Your task to perform on an android device: When is my next appointment? Image 0: 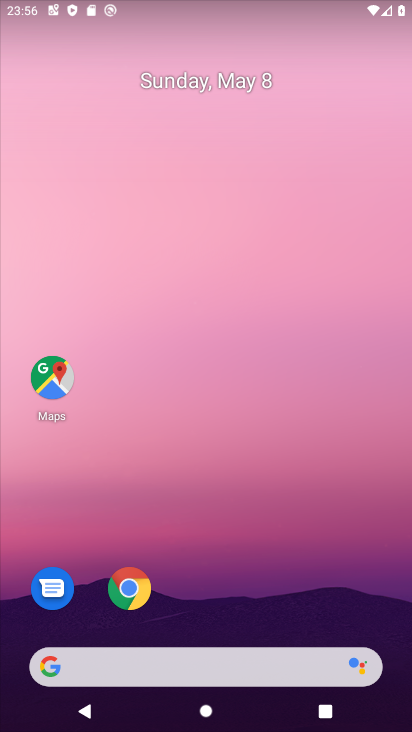
Step 0: drag from (241, 598) to (154, 10)
Your task to perform on an android device: When is my next appointment? Image 1: 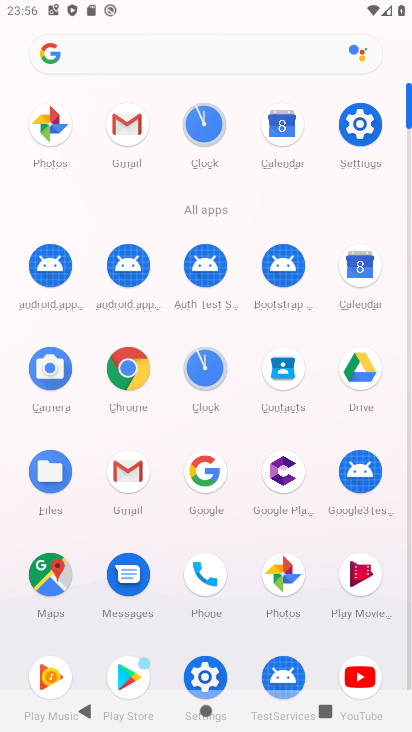
Step 1: click (357, 269)
Your task to perform on an android device: When is my next appointment? Image 2: 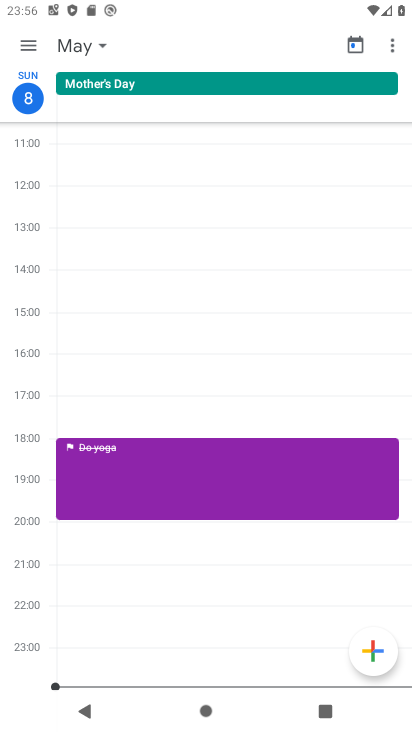
Step 2: task complete